Your task to perform on an android device: install app "Duolingo: language lessons" Image 0: 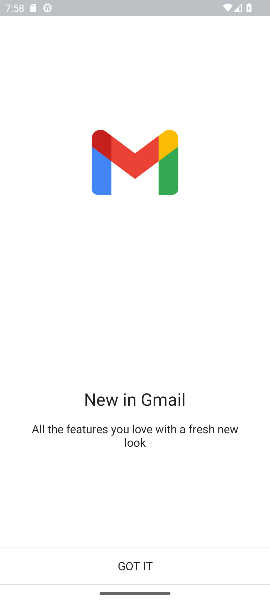
Step 0: press back button
Your task to perform on an android device: install app "Duolingo: language lessons" Image 1: 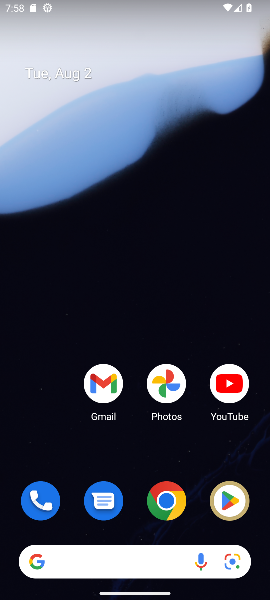
Step 1: click (233, 493)
Your task to perform on an android device: install app "Duolingo: language lessons" Image 2: 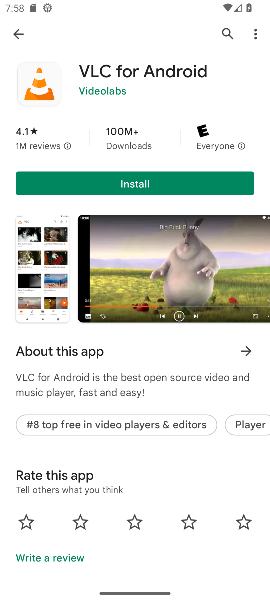
Step 2: click (225, 32)
Your task to perform on an android device: install app "Duolingo: language lessons" Image 3: 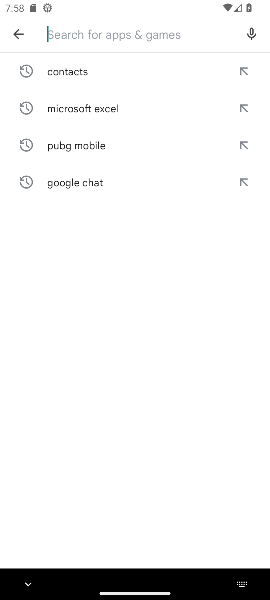
Step 3: type "Duolingo: language lessons"
Your task to perform on an android device: install app "Duolingo: language lessons" Image 4: 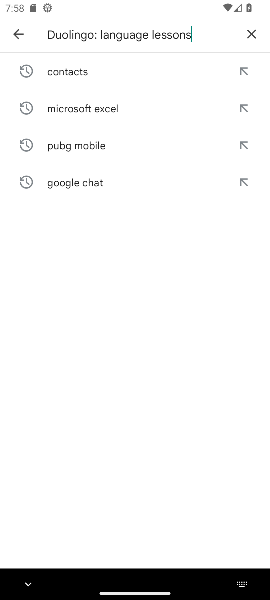
Step 4: type ""
Your task to perform on an android device: install app "Duolingo: language lessons" Image 5: 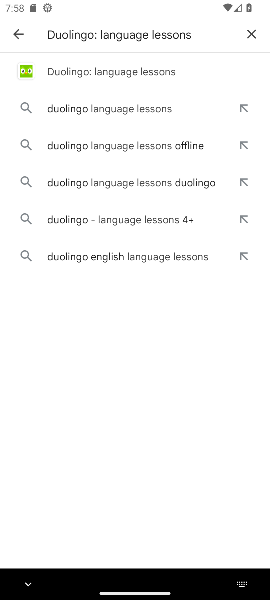
Step 5: click (160, 73)
Your task to perform on an android device: install app "Duolingo: language lessons" Image 6: 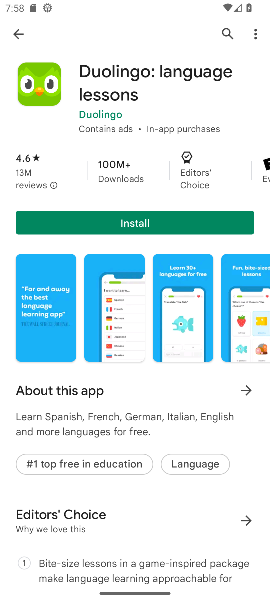
Step 6: click (148, 223)
Your task to perform on an android device: install app "Duolingo: language lessons" Image 7: 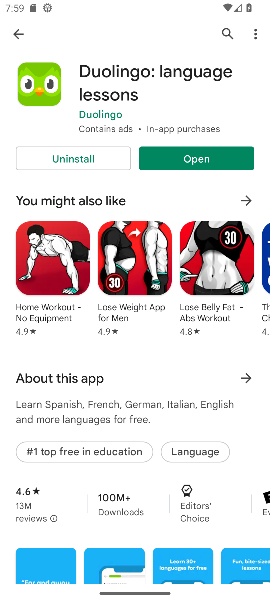
Step 7: task complete